Your task to perform on an android device: Open Reddit.com Image 0: 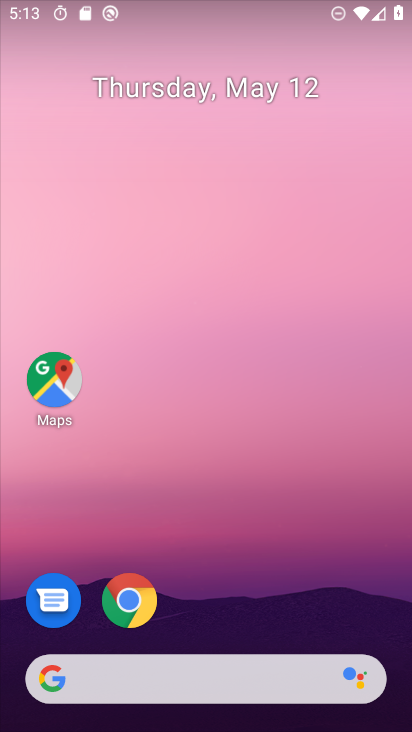
Step 0: drag from (238, 417) to (301, 129)
Your task to perform on an android device: Open Reddit.com Image 1: 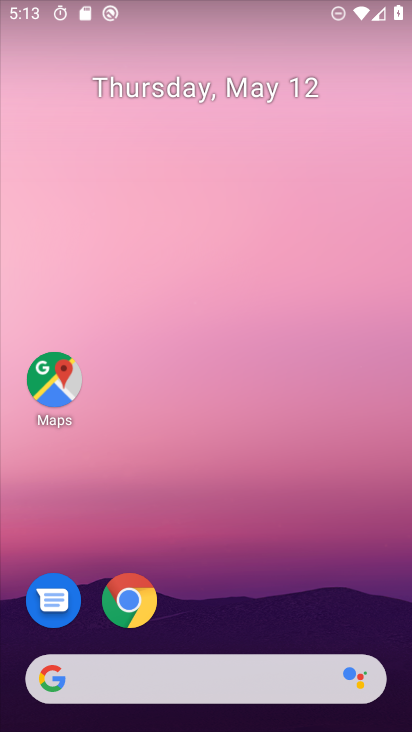
Step 1: click (222, 690)
Your task to perform on an android device: Open Reddit.com Image 2: 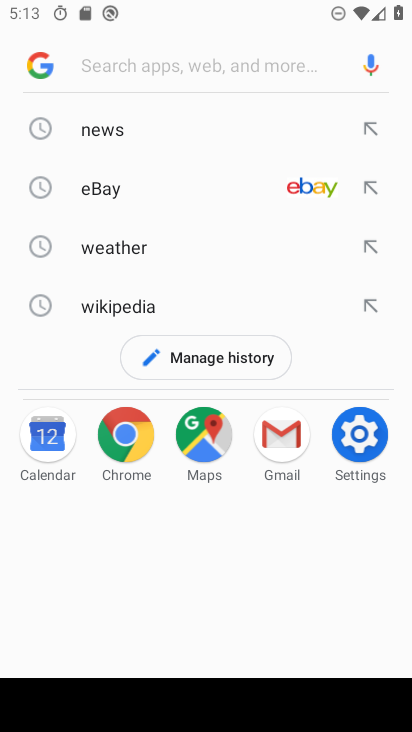
Step 2: click (197, 63)
Your task to perform on an android device: Open Reddit.com Image 3: 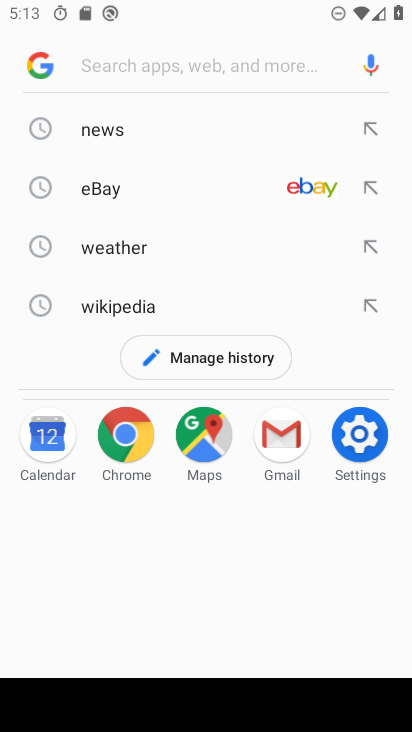
Step 3: type "reddit.com"
Your task to perform on an android device: Open Reddit.com Image 4: 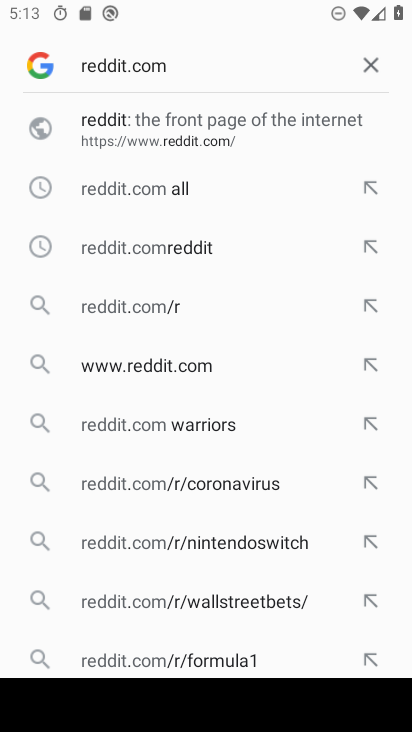
Step 4: click (151, 134)
Your task to perform on an android device: Open Reddit.com Image 5: 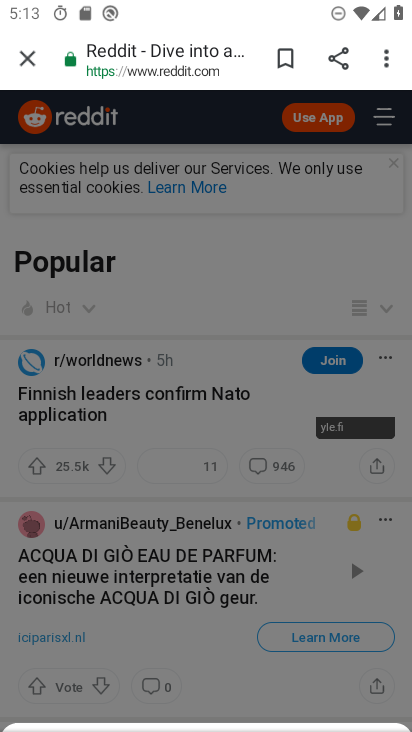
Step 5: task complete